Your task to perform on an android device: Go to Google Image 0: 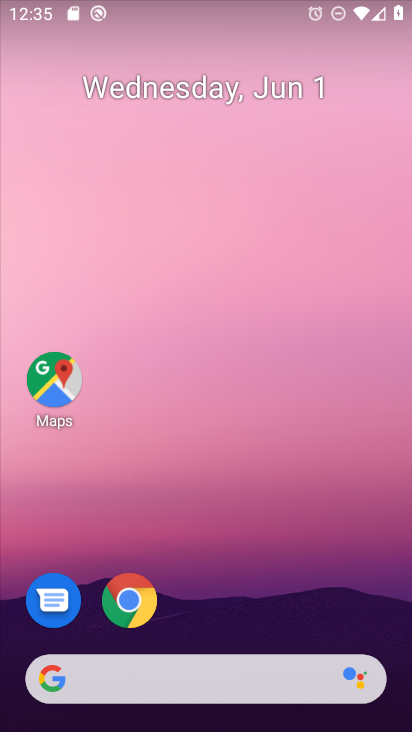
Step 0: drag from (212, 617) to (214, 48)
Your task to perform on an android device: Go to Google Image 1: 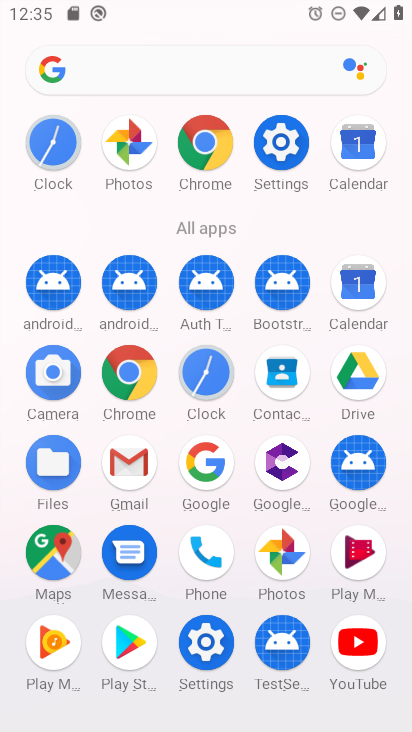
Step 1: click (201, 455)
Your task to perform on an android device: Go to Google Image 2: 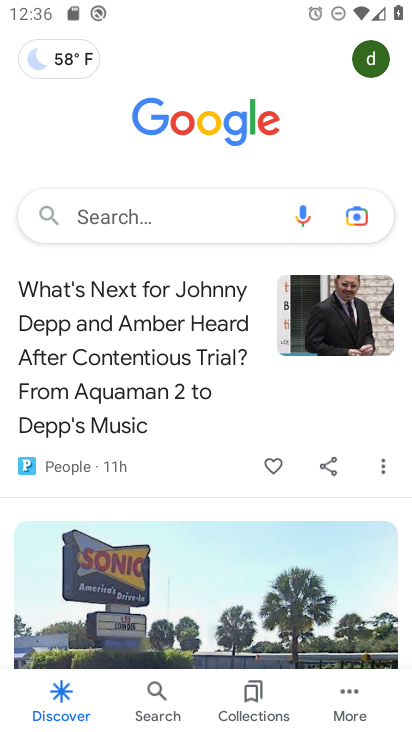
Step 2: task complete